Your task to perform on an android device: Open maps Image 0: 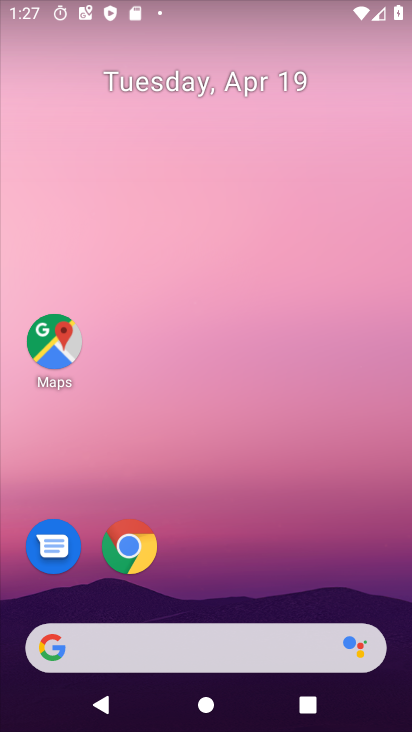
Step 0: click (36, 350)
Your task to perform on an android device: Open maps Image 1: 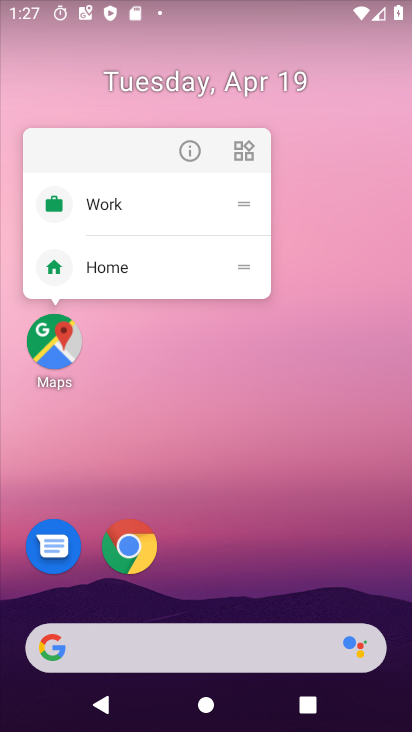
Step 1: click (51, 334)
Your task to perform on an android device: Open maps Image 2: 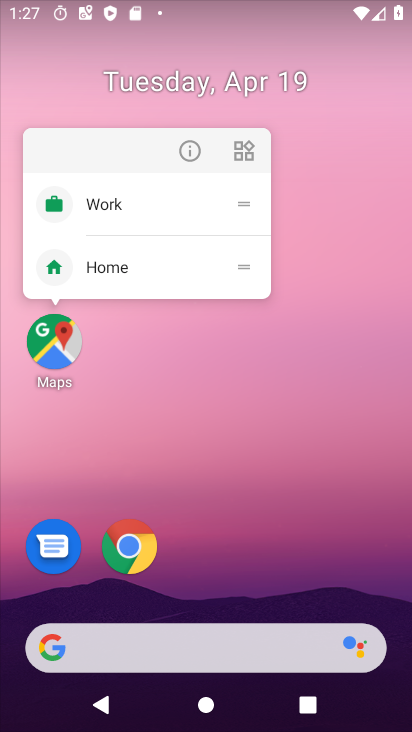
Step 2: click (57, 341)
Your task to perform on an android device: Open maps Image 3: 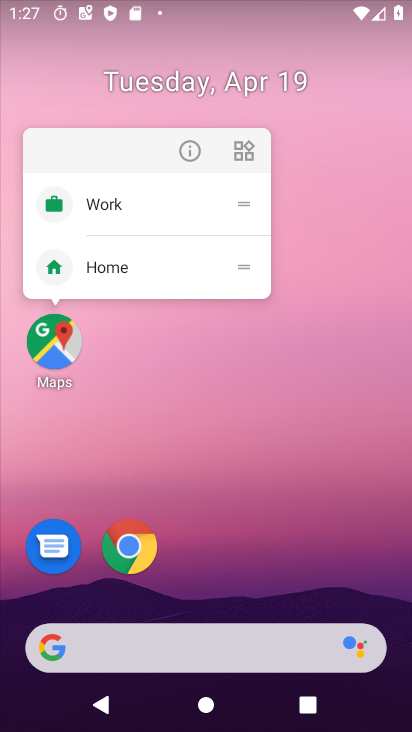
Step 3: click (52, 342)
Your task to perform on an android device: Open maps Image 4: 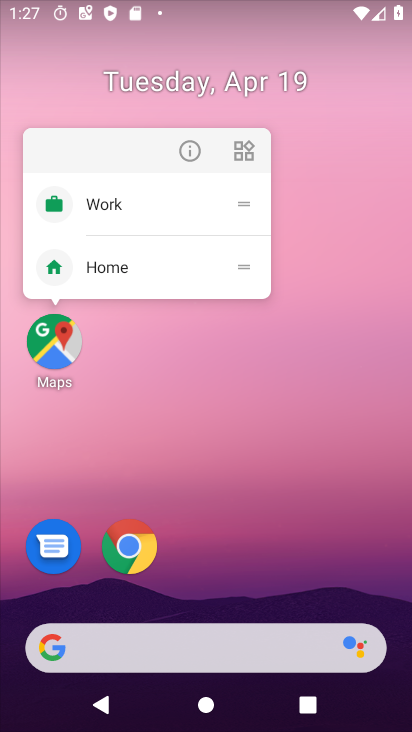
Step 4: click (49, 326)
Your task to perform on an android device: Open maps Image 5: 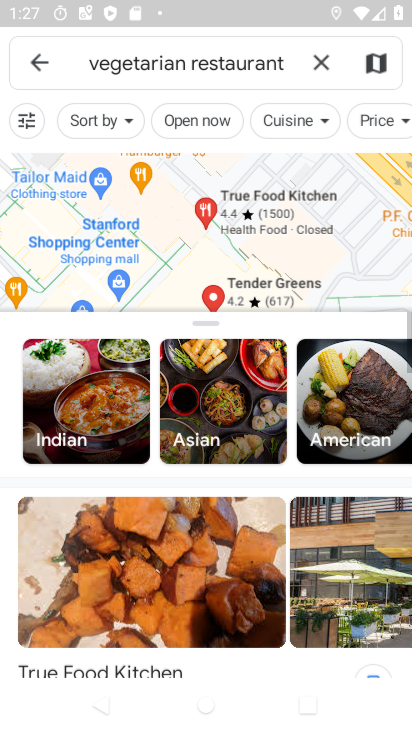
Step 5: task complete